Your task to perform on an android device: star an email in the gmail app Image 0: 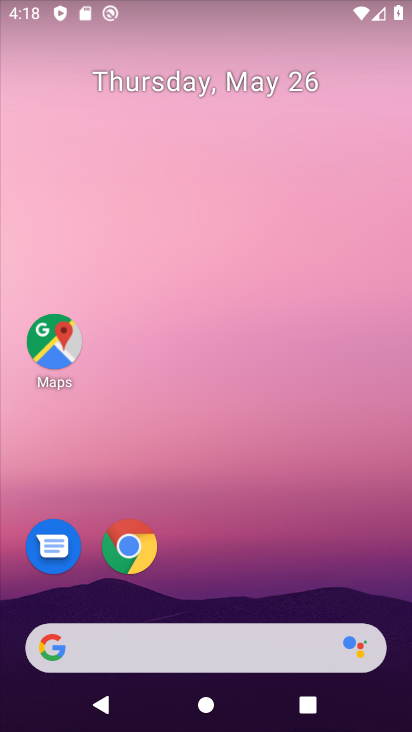
Step 0: drag from (244, 574) to (149, 163)
Your task to perform on an android device: star an email in the gmail app Image 1: 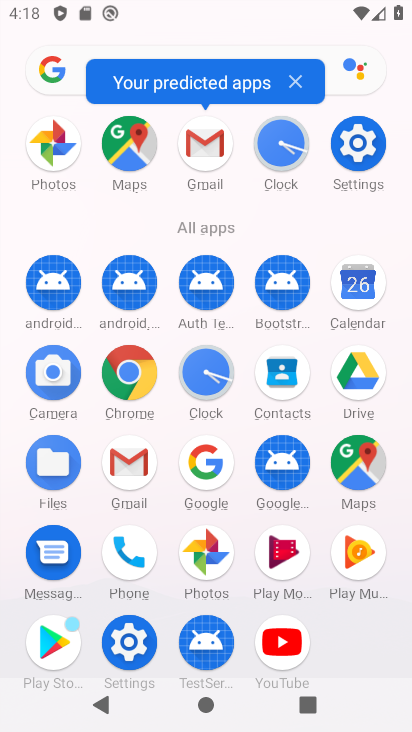
Step 1: click (200, 157)
Your task to perform on an android device: star an email in the gmail app Image 2: 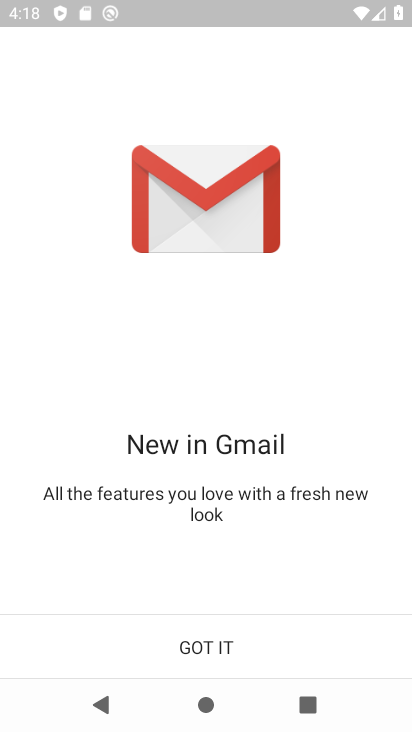
Step 2: click (217, 650)
Your task to perform on an android device: star an email in the gmail app Image 3: 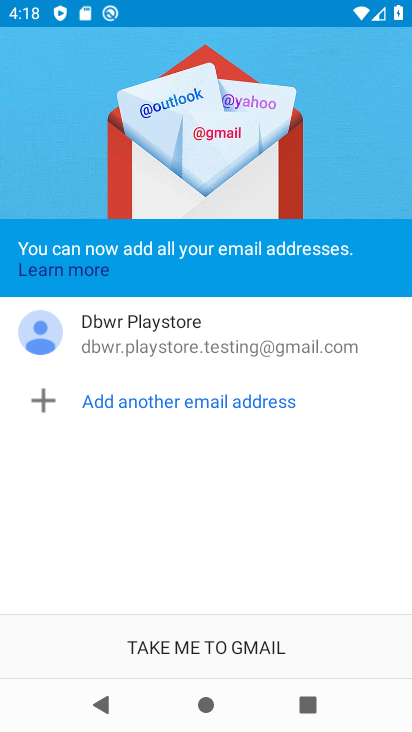
Step 3: click (217, 650)
Your task to perform on an android device: star an email in the gmail app Image 4: 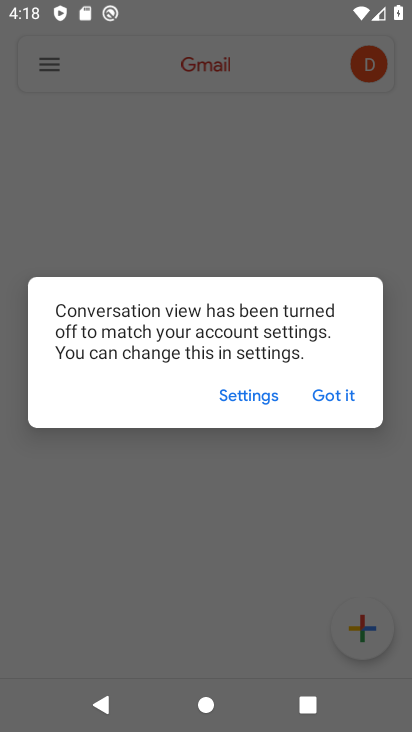
Step 4: click (341, 396)
Your task to perform on an android device: star an email in the gmail app Image 5: 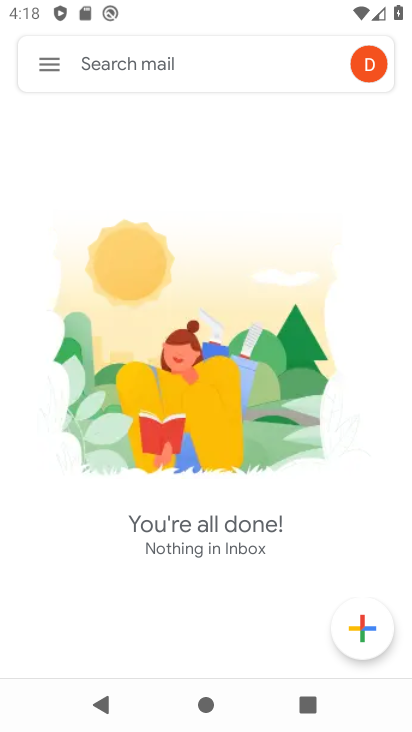
Step 5: click (46, 77)
Your task to perform on an android device: star an email in the gmail app Image 6: 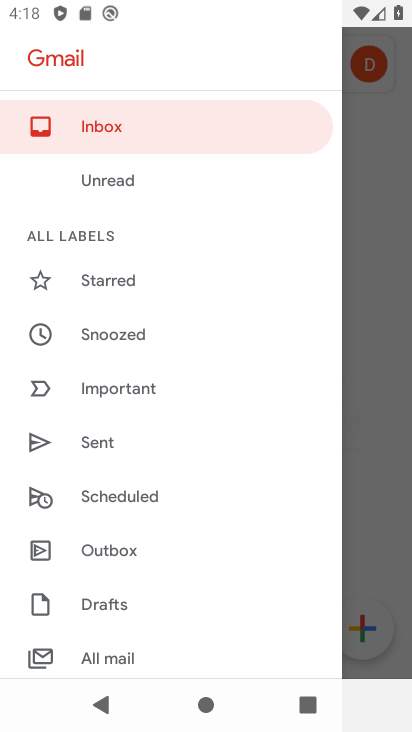
Step 6: task complete